Your task to perform on an android device: Open calendar and show me the fourth week of next month Image 0: 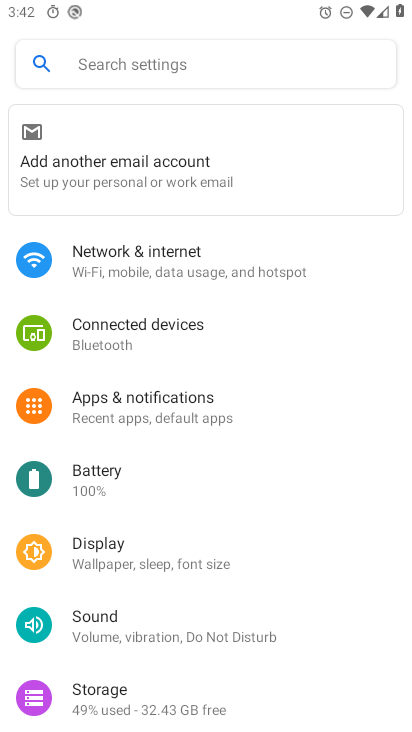
Step 0: press home button
Your task to perform on an android device: Open calendar and show me the fourth week of next month Image 1: 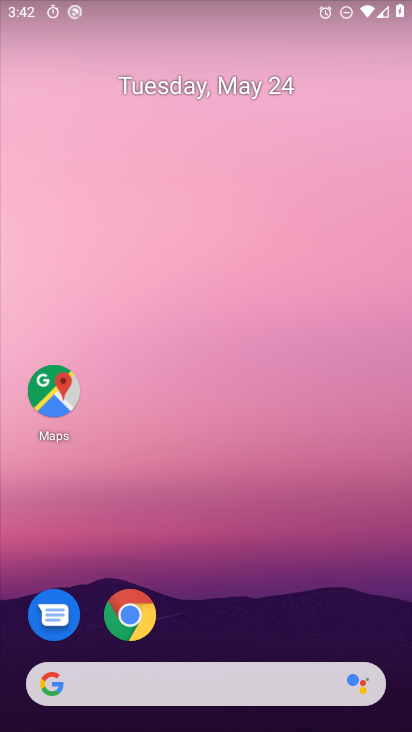
Step 1: drag from (189, 616) to (242, 267)
Your task to perform on an android device: Open calendar and show me the fourth week of next month Image 2: 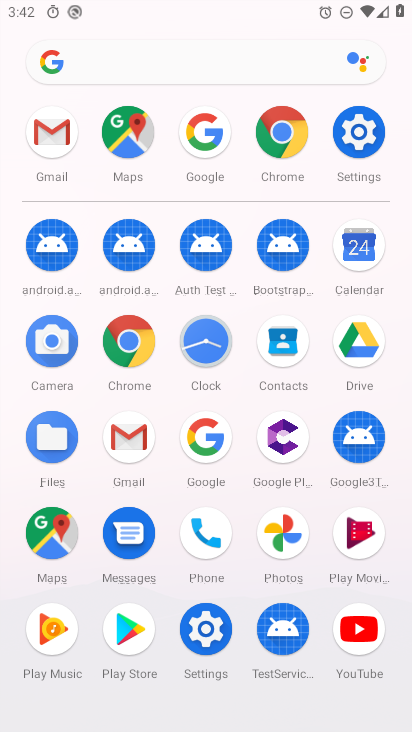
Step 2: click (357, 252)
Your task to perform on an android device: Open calendar and show me the fourth week of next month Image 3: 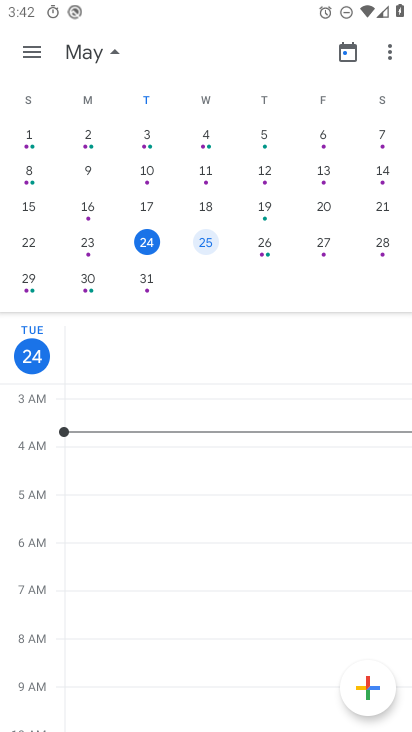
Step 3: drag from (385, 212) to (4, 265)
Your task to perform on an android device: Open calendar and show me the fourth week of next month Image 4: 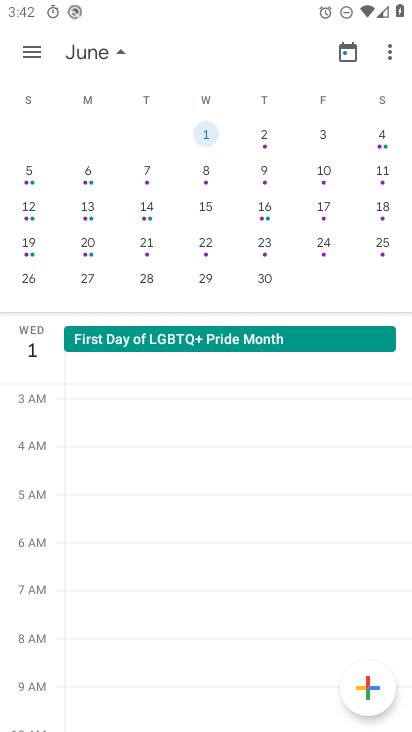
Step 4: click (34, 247)
Your task to perform on an android device: Open calendar and show me the fourth week of next month Image 5: 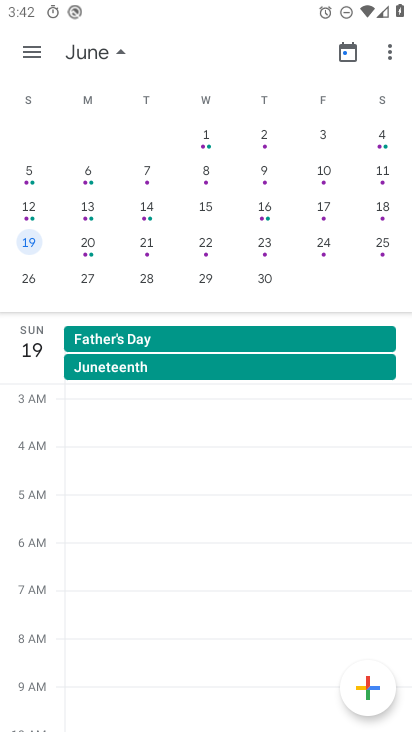
Step 5: task complete